Your task to perform on an android device: find snoozed emails in the gmail app Image 0: 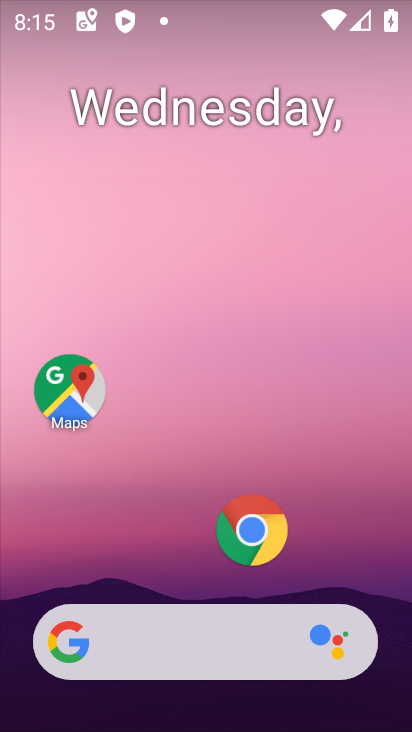
Step 0: drag from (154, 499) to (215, 173)
Your task to perform on an android device: find snoozed emails in the gmail app Image 1: 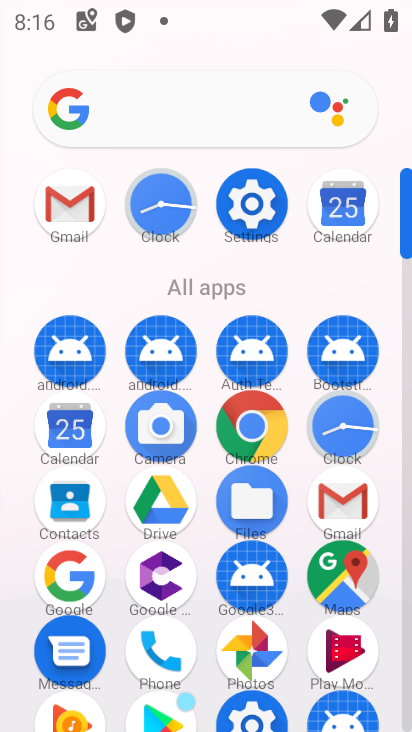
Step 1: click (322, 505)
Your task to perform on an android device: find snoozed emails in the gmail app Image 2: 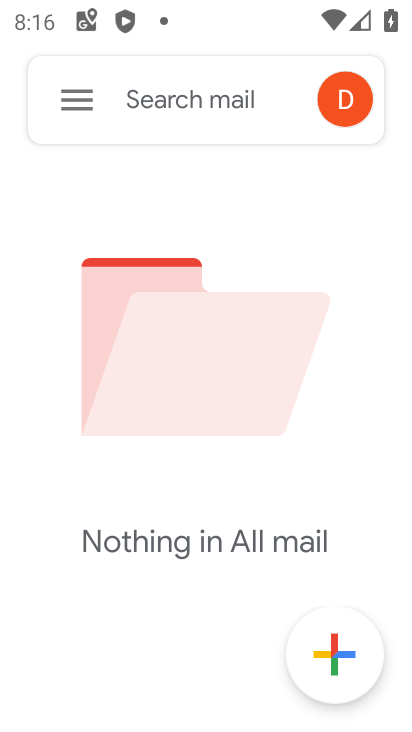
Step 2: click (73, 102)
Your task to perform on an android device: find snoozed emails in the gmail app Image 3: 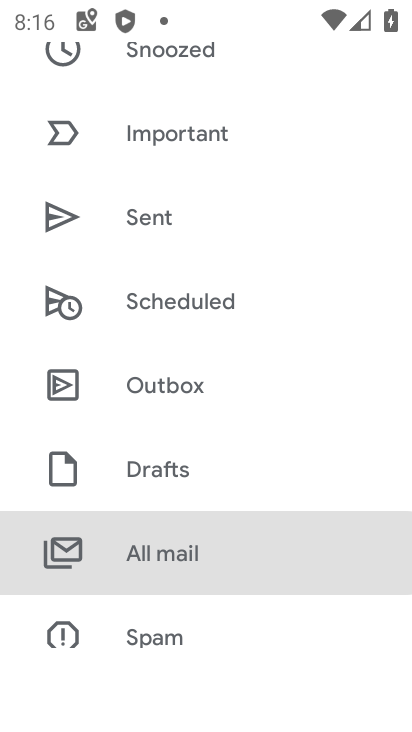
Step 3: click (171, 51)
Your task to perform on an android device: find snoozed emails in the gmail app Image 4: 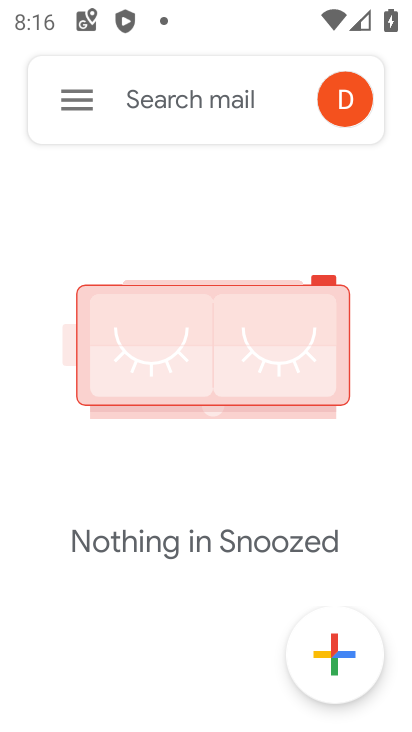
Step 4: task complete